Your task to perform on an android device: uninstall "Airtel Thanks" Image 0: 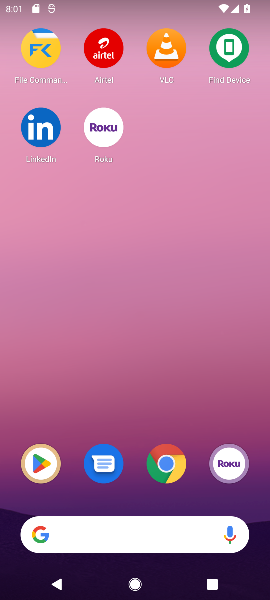
Step 0: click (108, 50)
Your task to perform on an android device: uninstall "Airtel Thanks" Image 1: 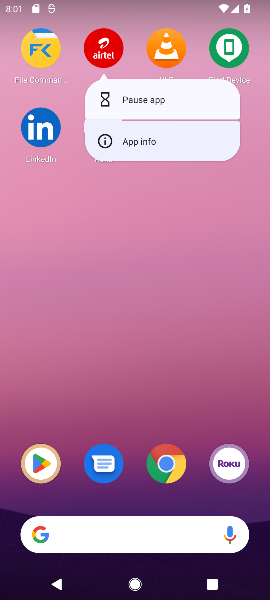
Step 1: click (111, 130)
Your task to perform on an android device: uninstall "Airtel Thanks" Image 2: 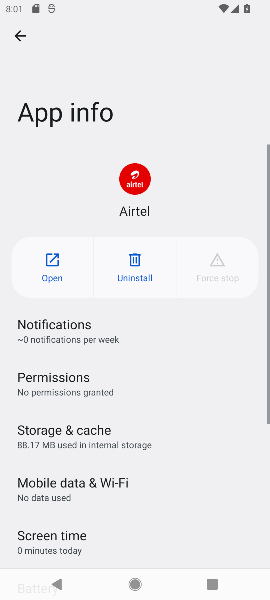
Step 2: click (154, 275)
Your task to perform on an android device: uninstall "Airtel Thanks" Image 3: 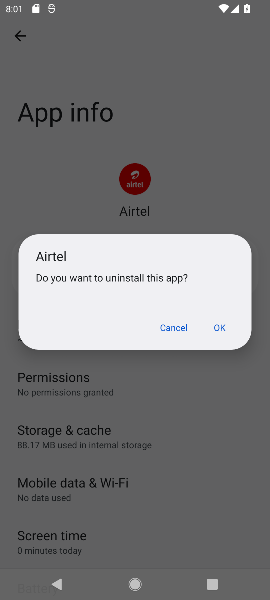
Step 3: click (213, 338)
Your task to perform on an android device: uninstall "Airtel Thanks" Image 4: 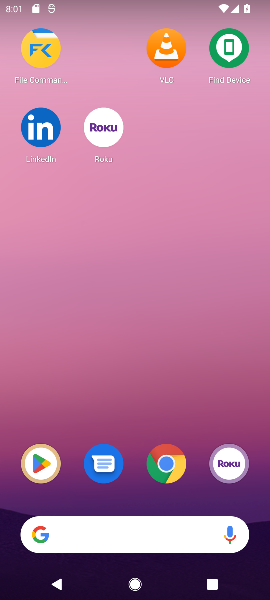
Step 4: task complete